Your task to perform on an android device: Search for top rated burger restaurants on Google Maps Image 0: 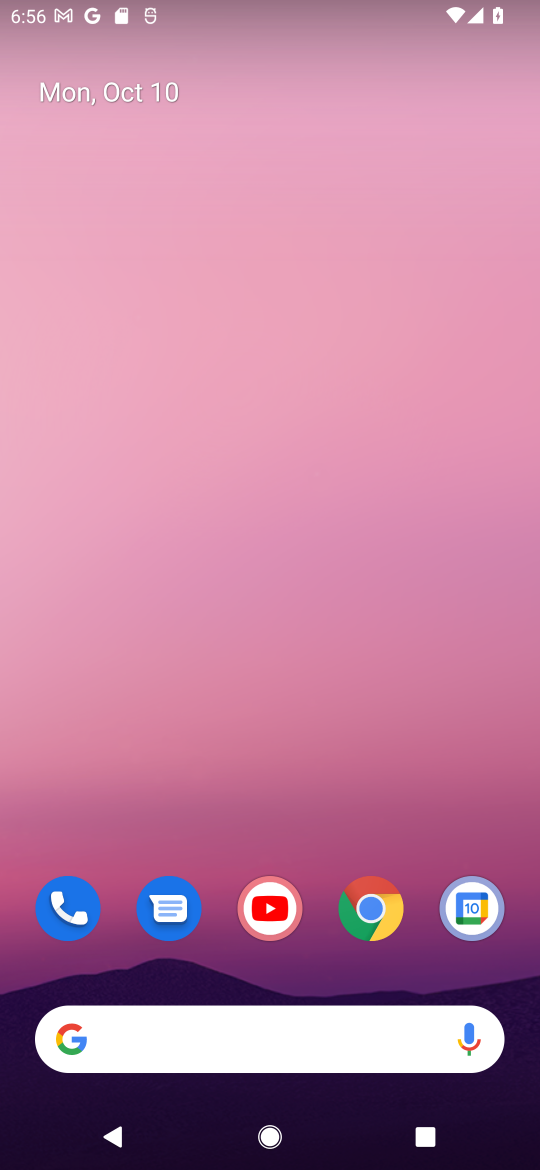
Step 0: drag from (209, 983) to (348, 11)
Your task to perform on an android device: Search for top rated burger restaurants on Google Maps Image 1: 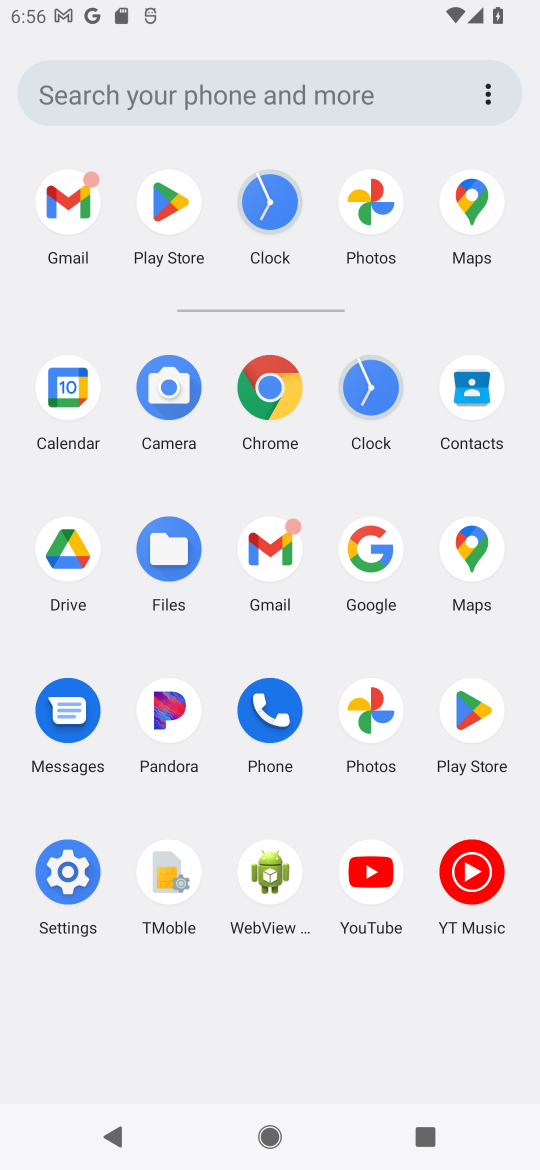
Step 1: click (479, 543)
Your task to perform on an android device: Search for top rated burger restaurants on Google Maps Image 2: 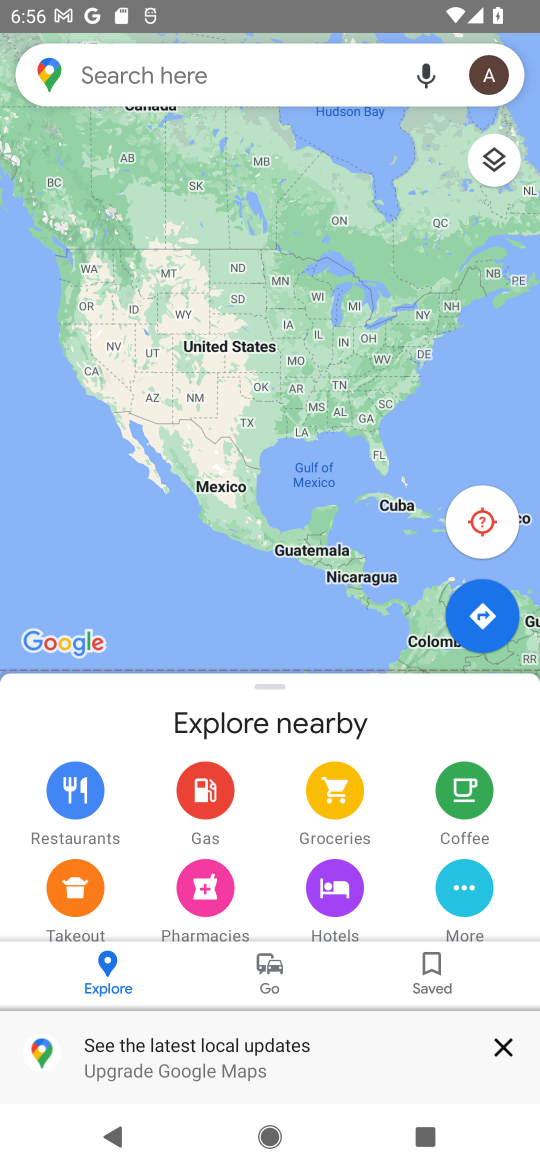
Step 2: click (261, 84)
Your task to perform on an android device: Search for top rated burger restaurants on Google Maps Image 3: 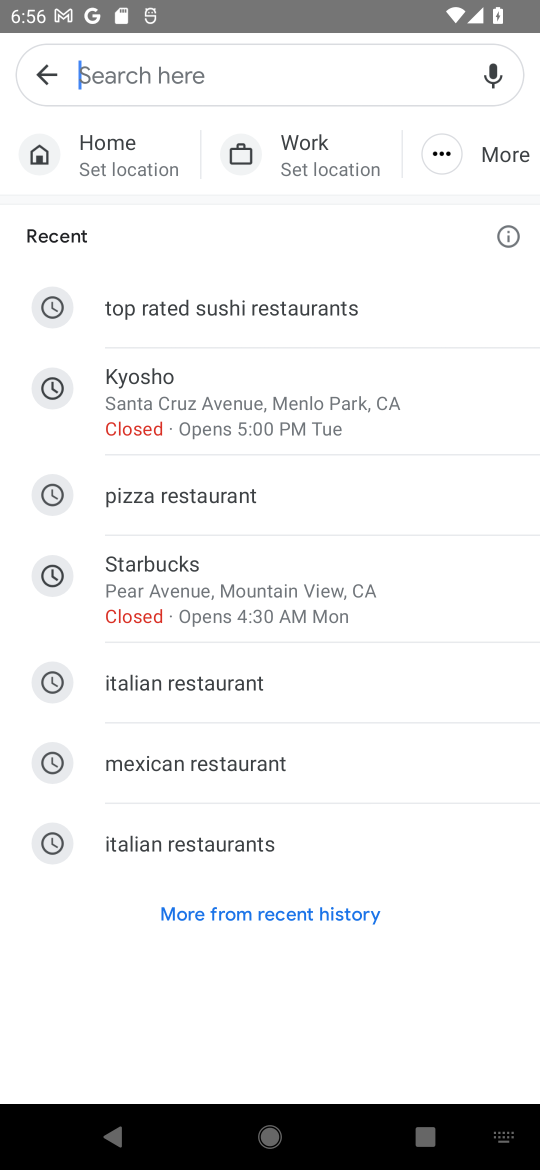
Step 3: type "top rated burger restaurants"
Your task to perform on an android device: Search for top rated burger restaurants on Google Maps Image 4: 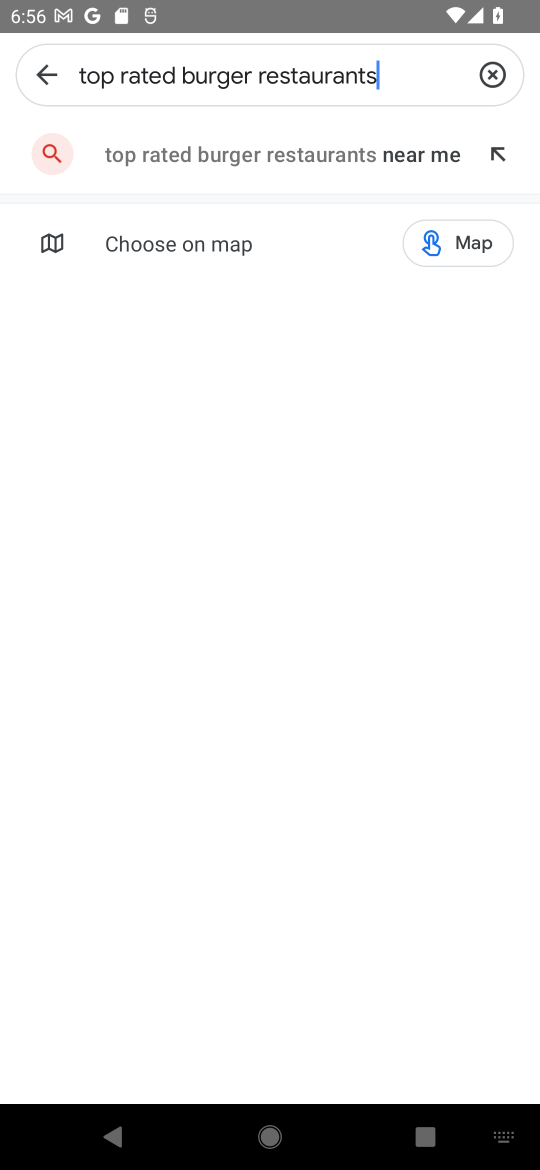
Step 4: press enter
Your task to perform on an android device: Search for top rated burger restaurants on Google Maps Image 5: 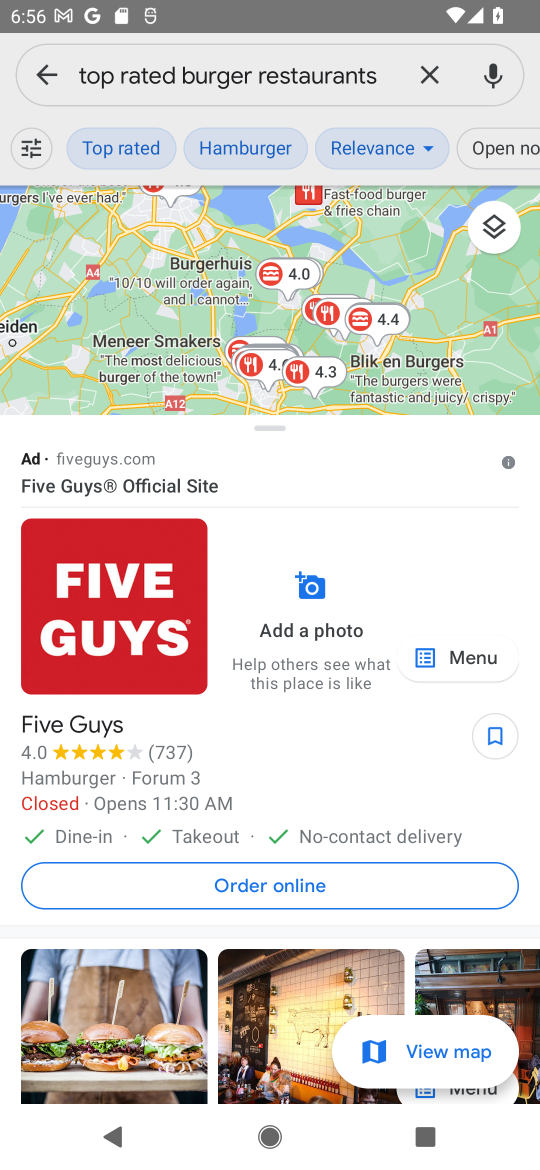
Step 5: task complete